Your task to perform on an android device: see creations saved in the google photos Image 0: 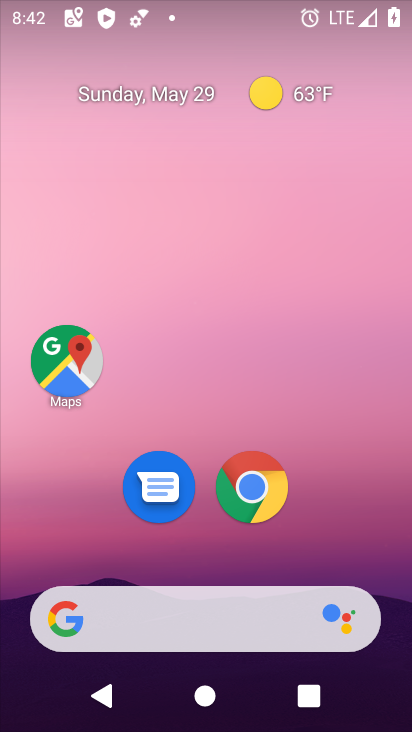
Step 0: drag from (208, 580) to (301, 153)
Your task to perform on an android device: see creations saved in the google photos Image 1: 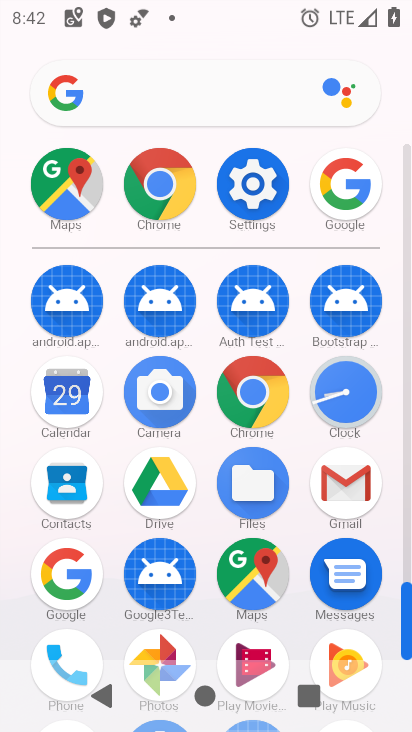
Step 1: drag from (224, 571) to (267, 261)
Your task to perform on an android device: see creations saved in the google photos Image 2: 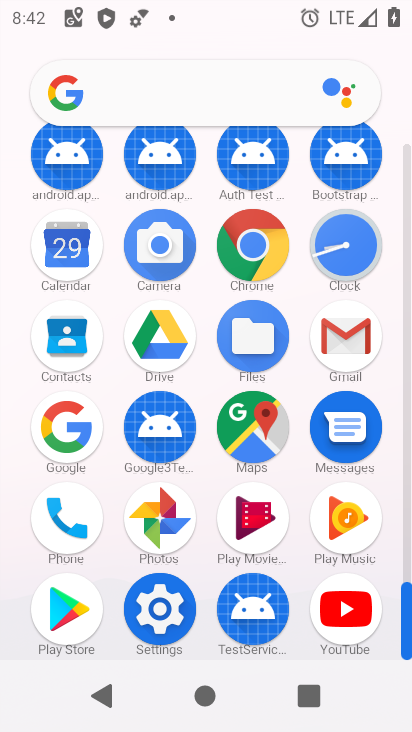
Step 2: click (151, 529)
Your task to perform on an android device: see creations saved in the google photos Image 3: 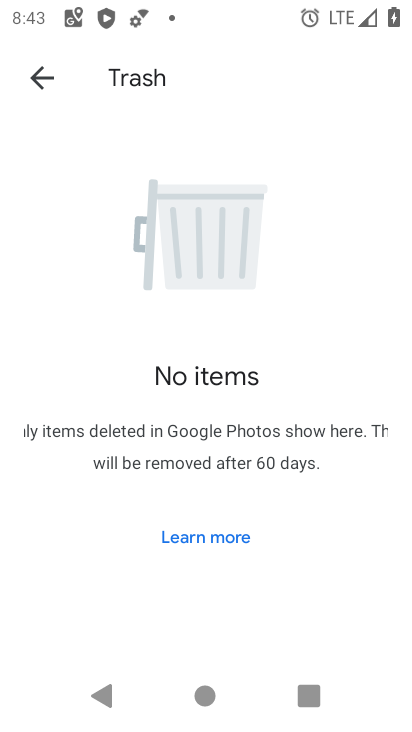
Step 3: click (33, 71)
Your task to perform on an android device: see creations saved in the google photos Image 4: 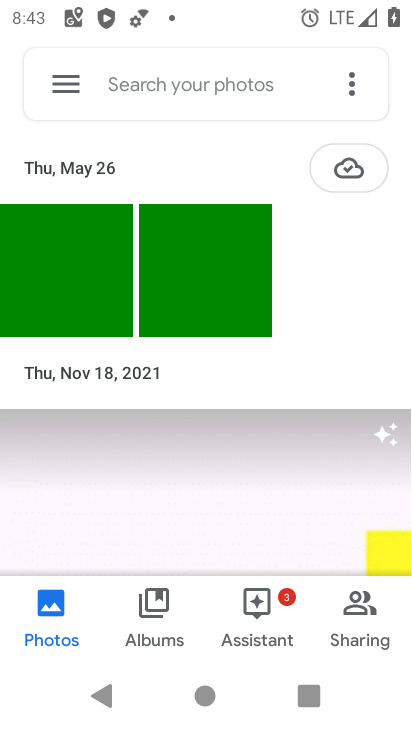
Step 4: click (276, 626)
Your task to perform on an android device: see creations saved in the google photos Image 5: 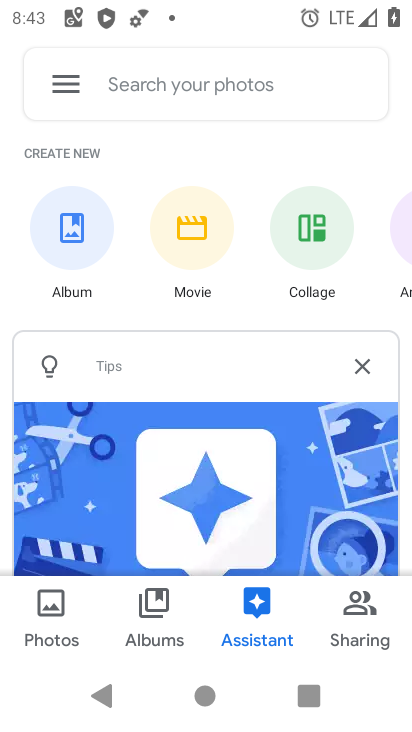
Step 5: task complete